Your task to perform on an android device: Open settings Image 0: 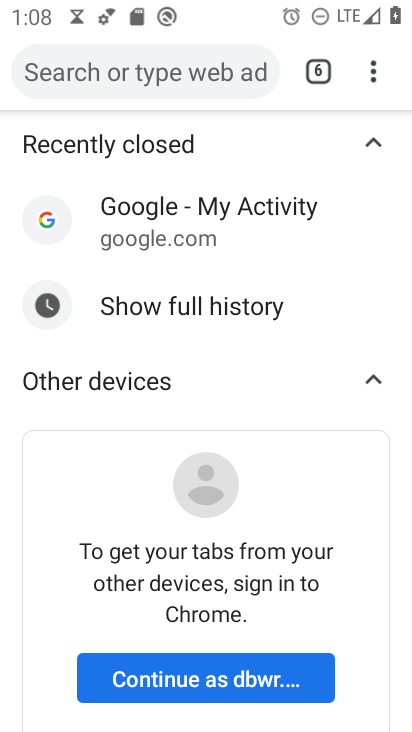
Step 0: press home button
Your task to perform on an android device: Open settings Image 1: 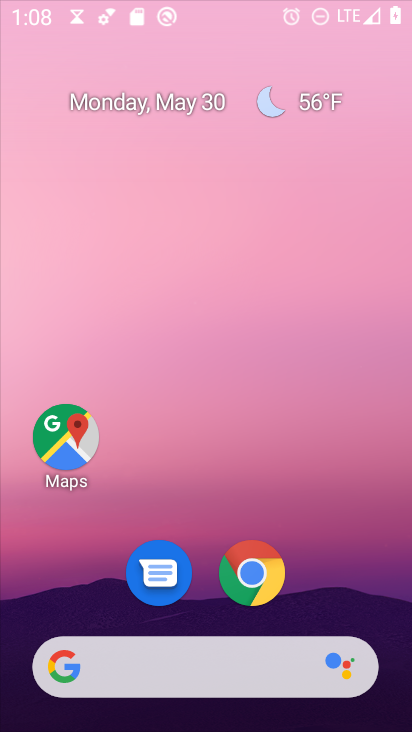
Step 1: drag from (290, 666) to (277, 4)
Your task to perform on an android device: Open settings Image 2: 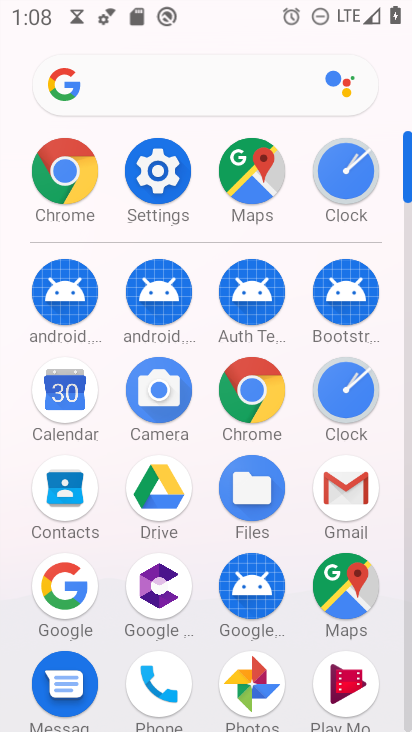
Step 2: click (160, 182)
Your task to perform on an android device: Open settings Image 3: 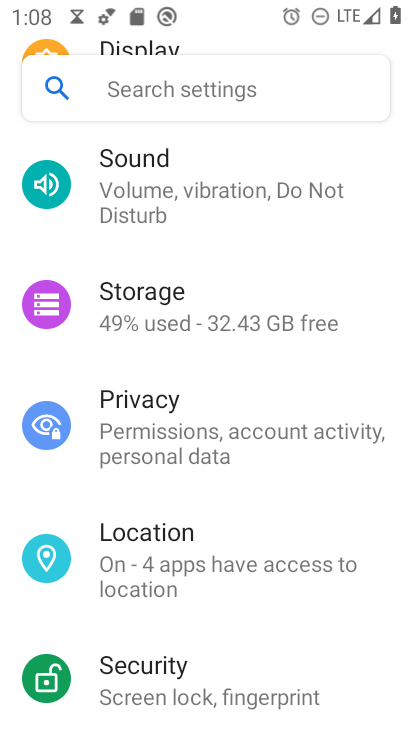
Step 3: task complete